Your task to perform on an android device: Search for pizza restaurants on Maps Image 0: 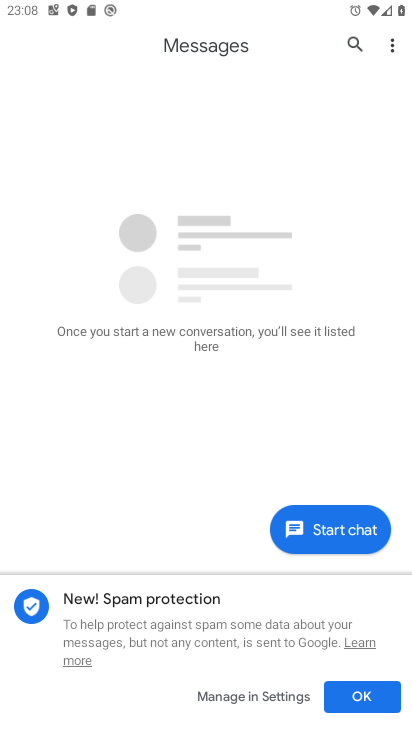
Step 0: press home button
Your task to perform on an android device: Search for pizza restaurants on Maps Image 1: 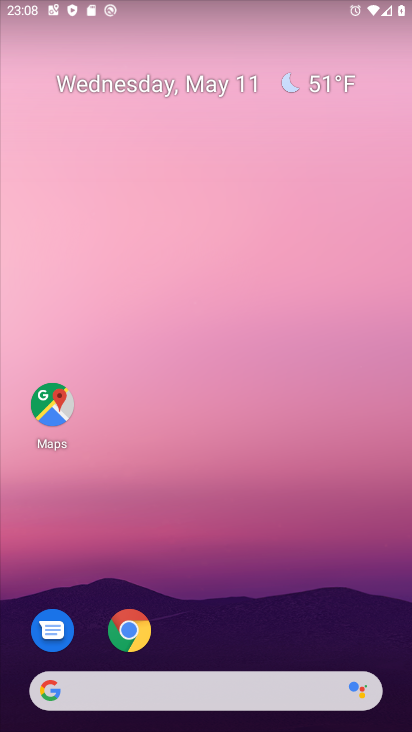
Step 1: drag from (220, 719) to (200, 208)
Your task to perform on an android device: Search for pizza restaurants on Maps Image 2: 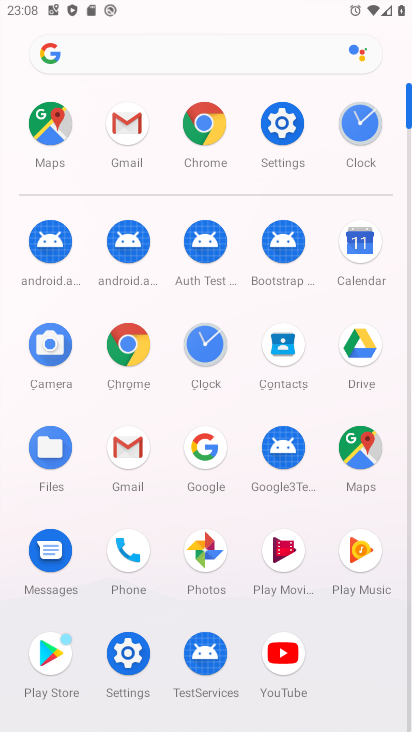
Step 2: click (365, 454)
Your task to perform on an android device: Search for pizza restaurants on Maps Image 3: 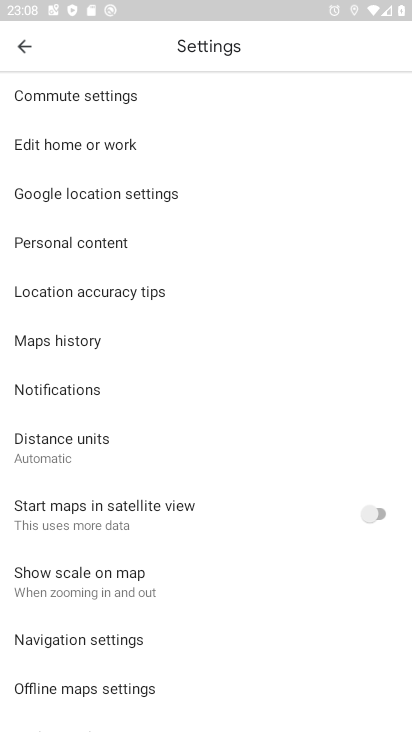
Step 3: click (22, 49)
Your task to perform on an android device: Search for pizza restaurants on Maps Image 4: 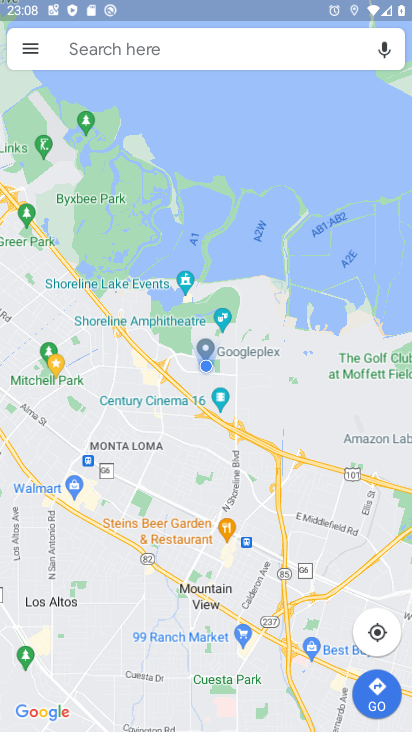
Step 4: click (198, 54)
Your task to perform on an android device: Search for pizza restaurants on Maps Image 5: 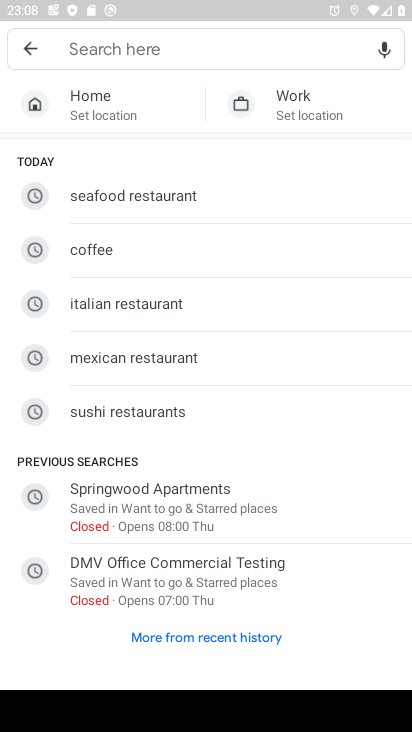
Step 5: type "pizza restaurants"
Your task to perform on an android device: Search for pizza restaurants on Maps Image 6: 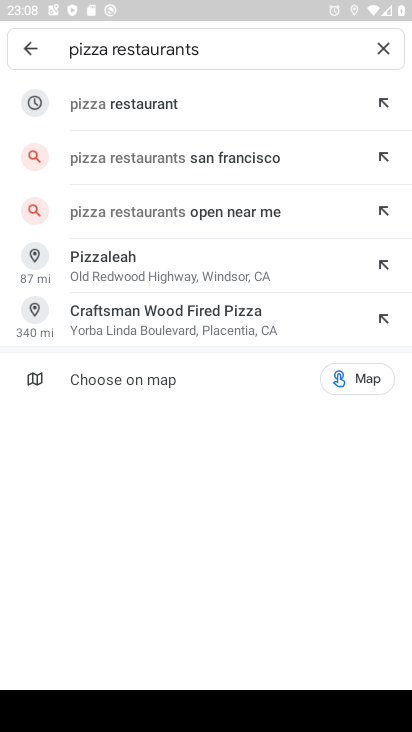
Step 6: click (133, 104)
Your task to perform on an android device: Search for pizza restaurants on Maps Image 7: 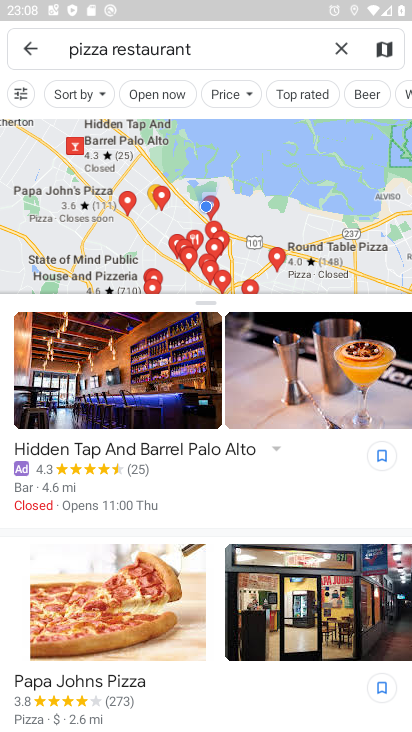
Step 7: task complete